Your task to perform on an android device: allow cookies in the chrome app Image 0: 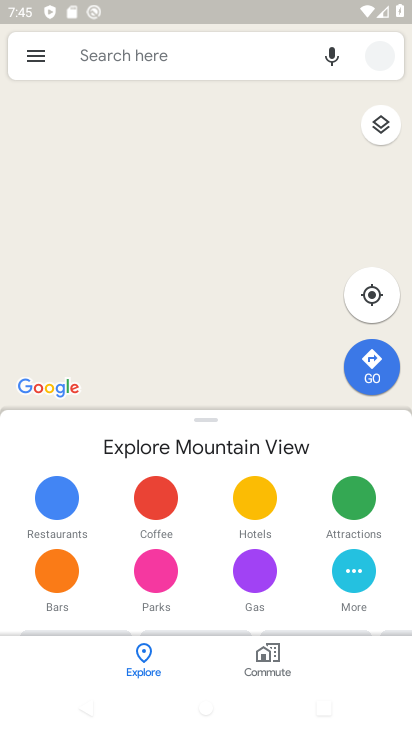
Step 0: press back button
Your task to perform on an android device: allow cookies in the chrome app Image 1: 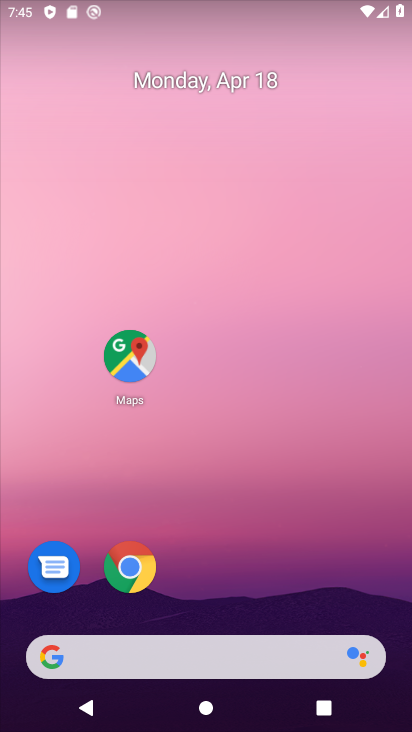
Step 1: click (143, 568)
Your task to perform on an android device: allow cookies in the chrome app Image 2: 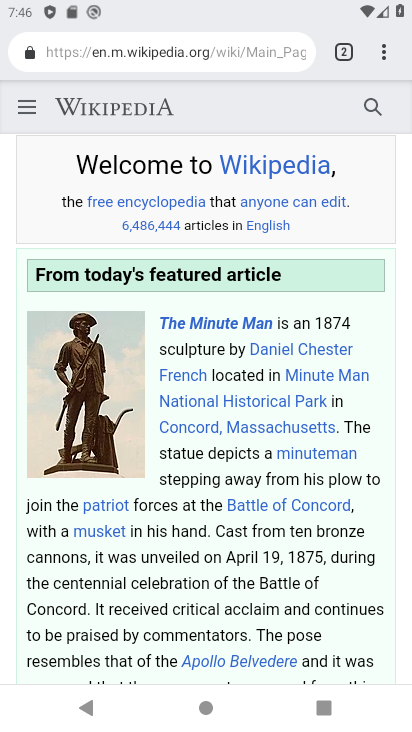
Step 2: click (378, 51)
Your task to perform on an android device: allow cookies in the chrome app Image 3: 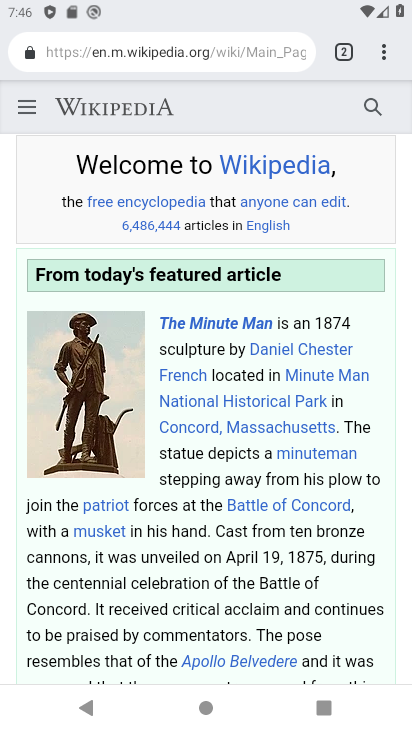
Step 3: click (386, 50)
Your task to perform on an android device: allow cookies in the chrome app Image 4: 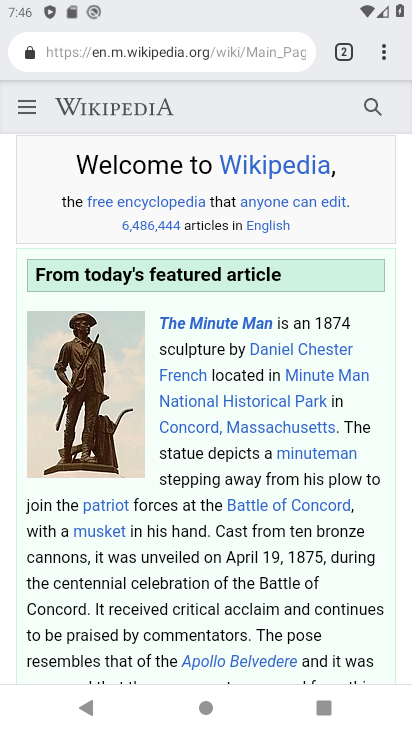
Step 4: click (390, 52)
Your task to perform on an android device: allow cookies in the chrome app Image 5: 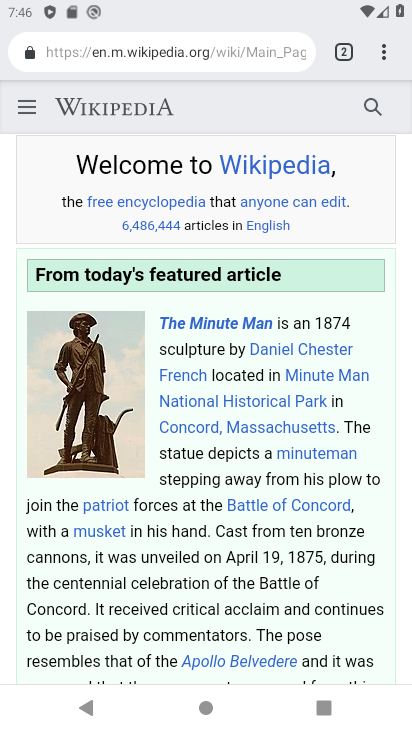
Step 5: click (394, 53)
Your task to perform on an android device: allow cookies in the chrome app Image 6: 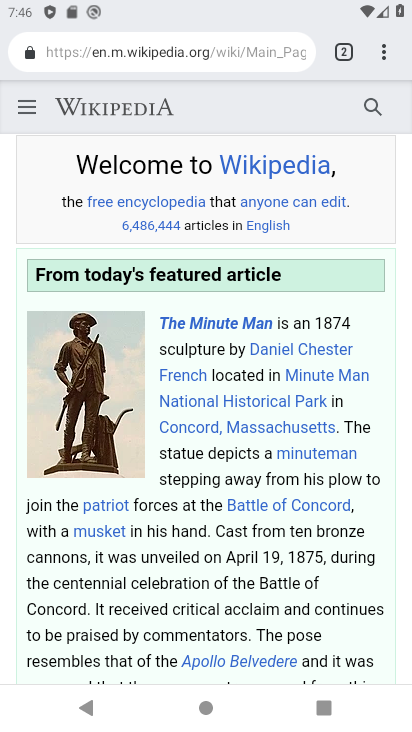
Step 6: click (379, 56)
Your task to perform on an android device: allow cookies in the chrome app Image 7: 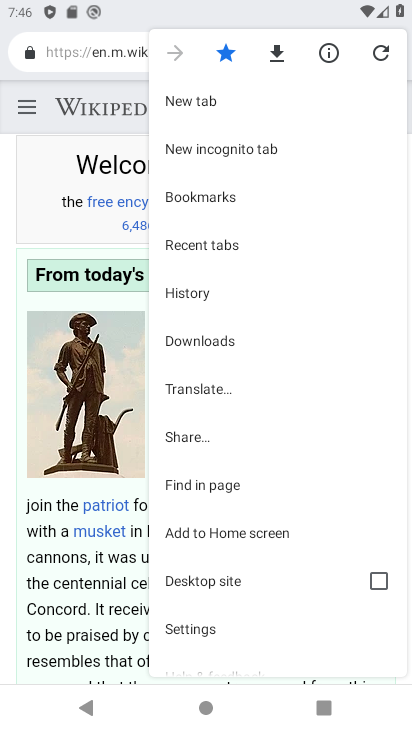
Step 7: click (193, 617)
Your task to perform on an android device: allow cookies in the chrome app Image 8: 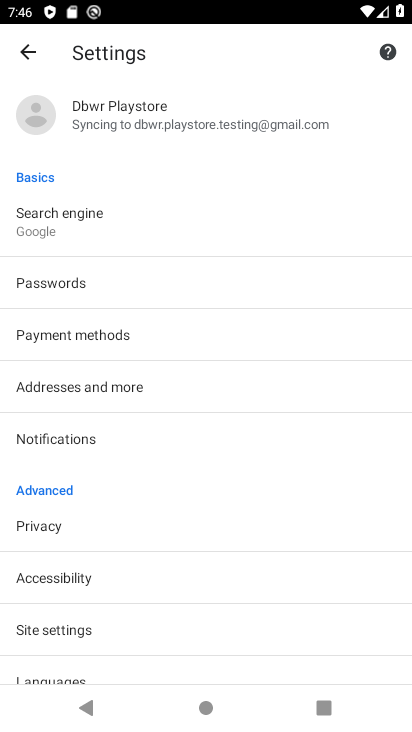
Step 8: drag from (115, 599) to (168, 434)
Your task to perform on an android device: allow cookies in the chrome app Image 9: 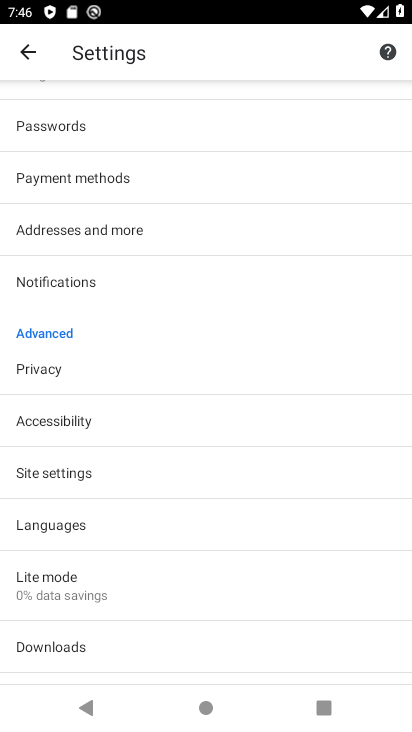
Step 9: click (63, 463)
Your task to perform on an android device: allow cookies in the chrome app Image 10: 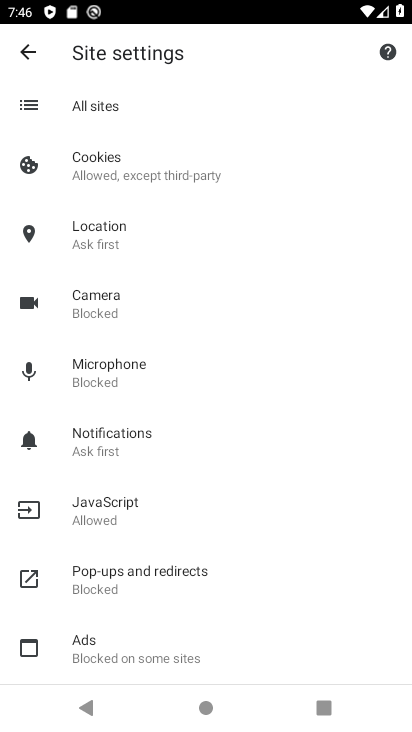
Step 10: click (118, 163)
Your task to perform on an android device: allow cookies in the chrome app Image 11: 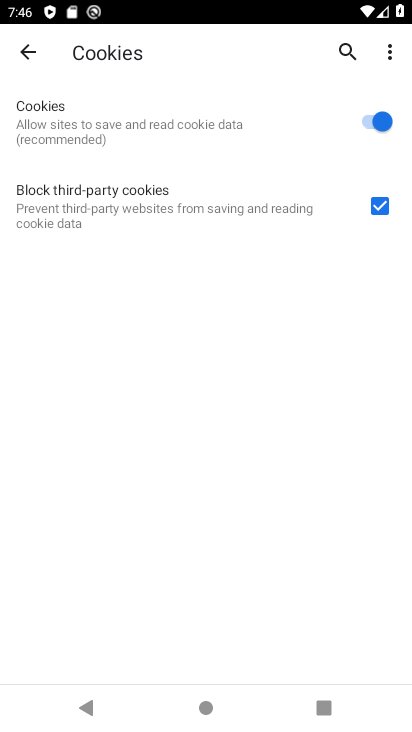
Step 11: click (133, 129)
Your task to perform on an android device: allow cookies in the chrome app Image 12: 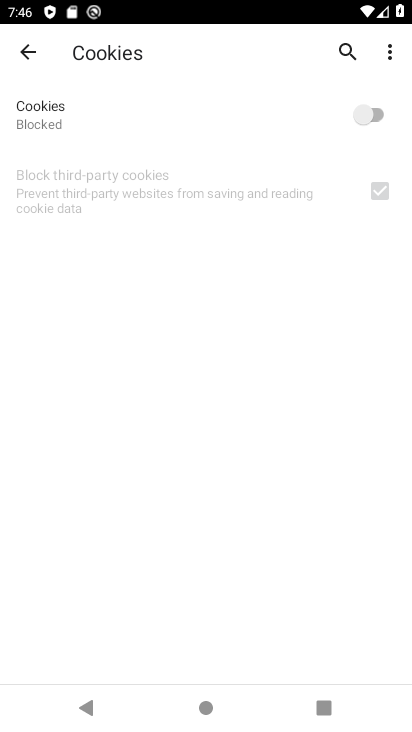
Step 12: click (133, 129)
Your task to perform on an android device: allow cookies in the chrome app Image 13: 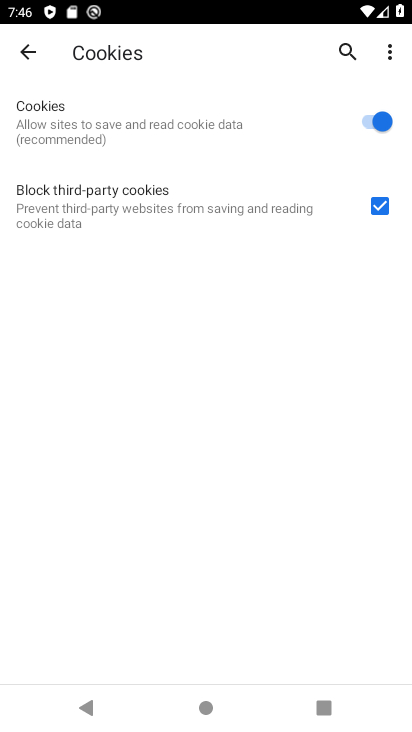
Step 13: task complete